Your task to perform on an android device: Open calendar and show me the third week of next month Image 0: 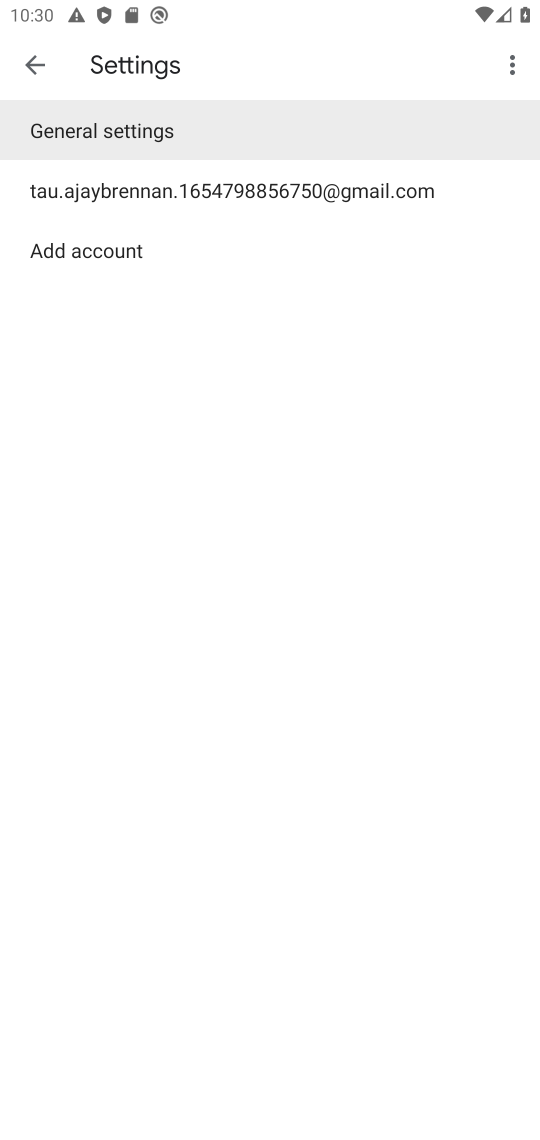
Step 0: press home button
Your task to perform on an android device: Open calendar and show me the third week of next month Image 1: 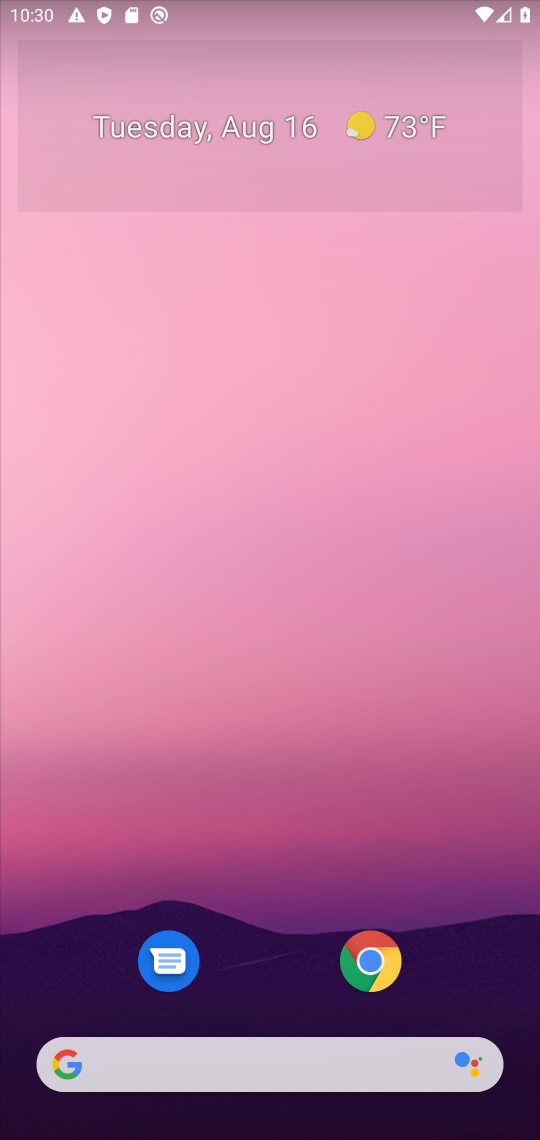
Step 1: task complete